Your task to perform on an android device: Open Chrome and go to the settings page Image 0: 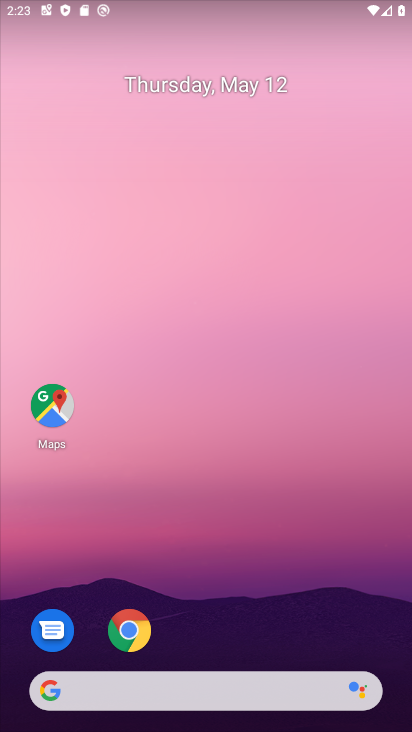
Step 0: click (131, 631)
Your task to perform on an android device: Open Chrome and go to the settings page Image 1: 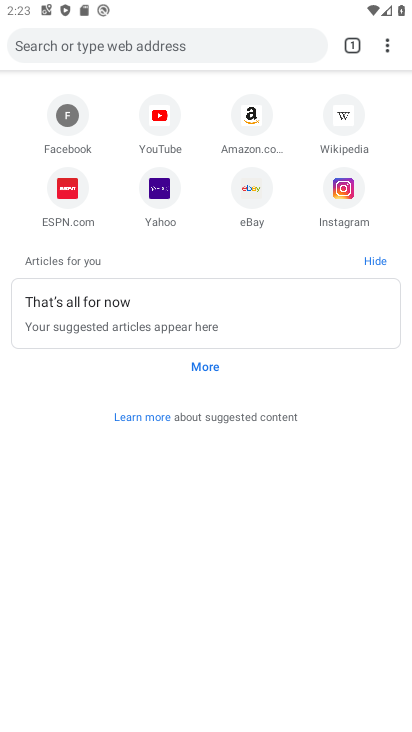
Step 1: click (388, 45)
Your task to perform on an android device: Open Chrome and go to the settings page Image 2: 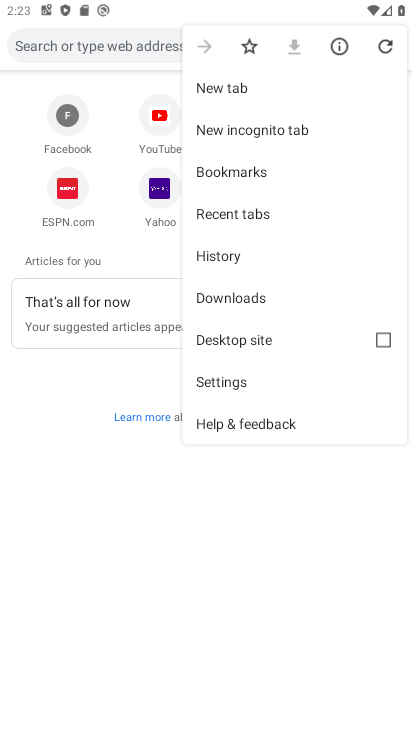
Step 2: click (213, 382)
Your task to perform on an android device: Open Chrome and go to the settings page Image 3: 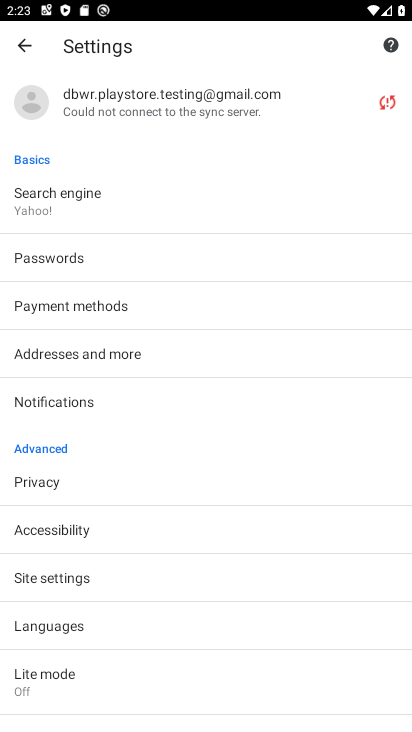
Step 3: task complete